Your task to perform on an android device: What's the weather going to be tomorrow? Image 0: 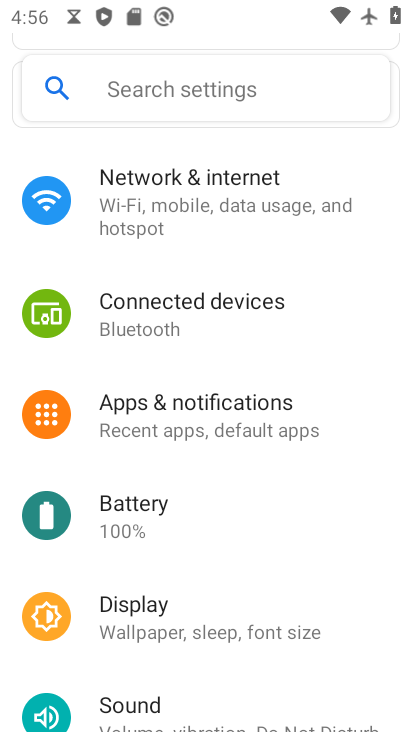
Step 0: press back button
Your task to perform on an android device: What's the weather going to be tomorrow? Image 1: 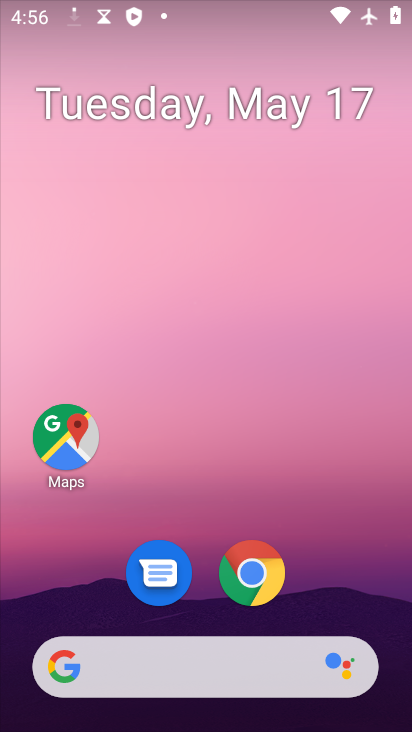
Step 1: drag from (5, 185) to (403, 294)
Your task to perform on an android device: What's the weather going to be tomorrow? Image 2: 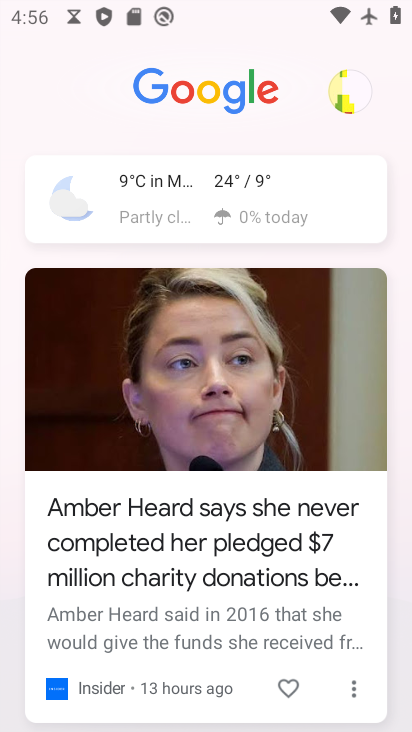
Step 2: click (142, 200)
Your task to perform on an android device: What's the weather going to be tomorrow? Image 3: 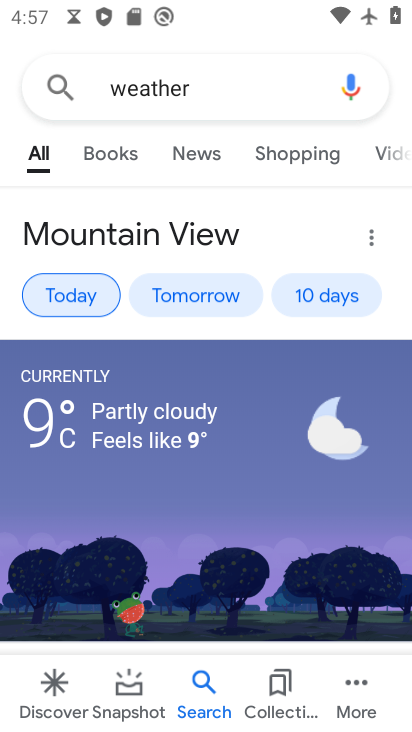
Step 3: click (214, 296)
Your task to perform on an android device: What's the weather going to be tomorrow? Image 4: 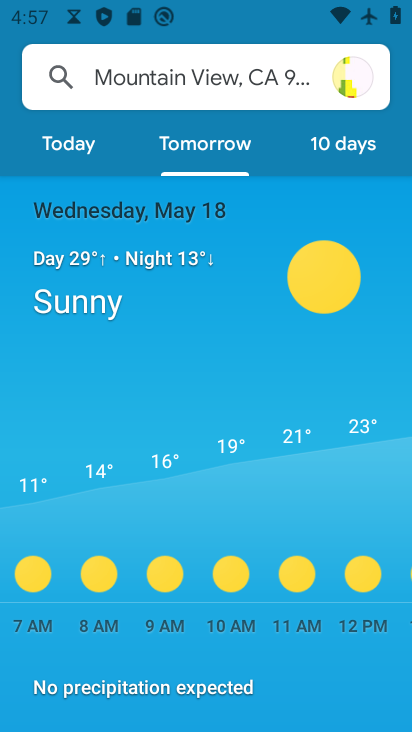
Step 4: press back button
Your task to perform on an android device: What's the weather going to be tomorrow? Image 5: 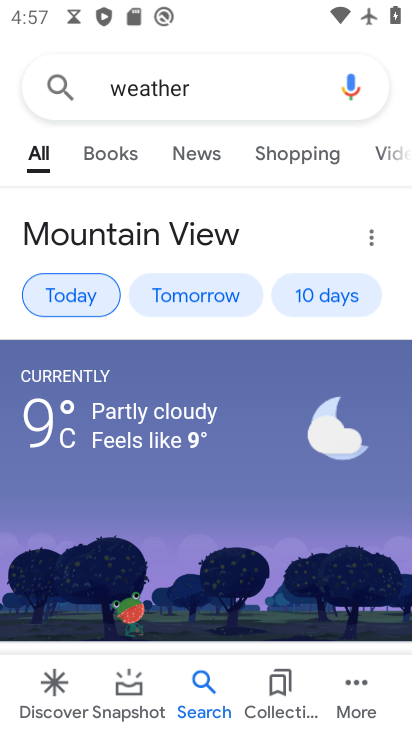
Step 5: press home button
Your task to perform on an android device: What's the weather going to be tomorrow? Image 6: 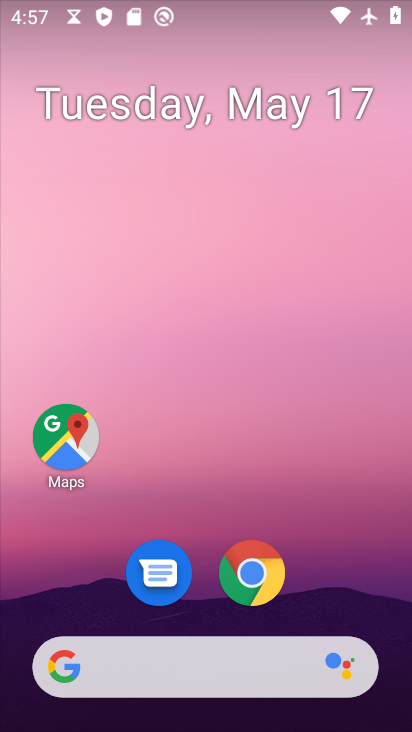
Step 6: drag from (1, 323) to (378, 401)
Your task to perform on an android device: What's the weather going to be tomorrow? Image 7: 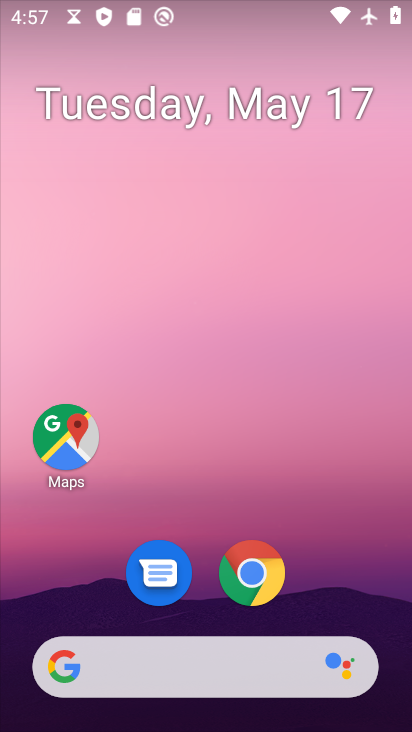
Step 7: drag from (77, 266) to (400, 348)
Your task to perform on an android device: What's the weather going to be tomorrow? Image 8: 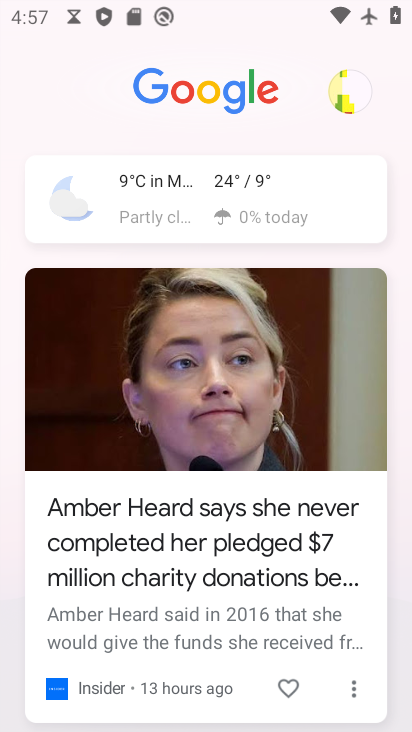
Step 8: click (154, 207)
Your task to perform on an android device: What's the weather going to be tomorrow? Image 9: 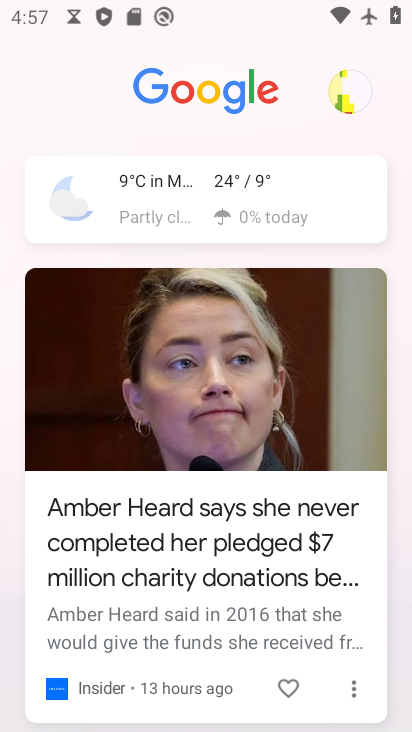
Step 9: click (154, 205)
Your task to perform on an android device: What's the weather going to be tomorrow? Image 10: 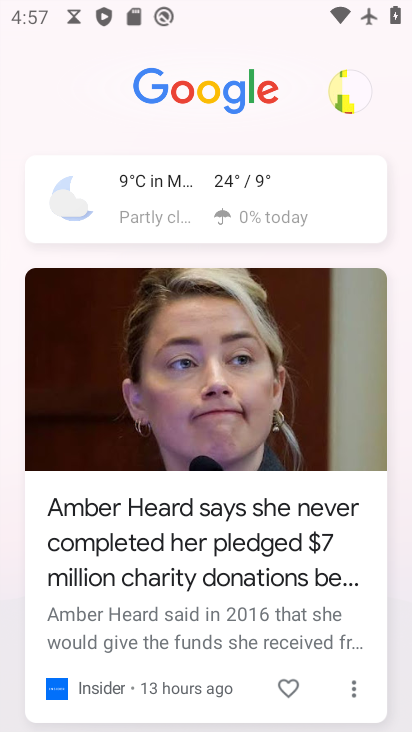
Step 10: click (161, 204)
Your task to perform on an android device: What's the weather going to be tomorrow? Image 11: 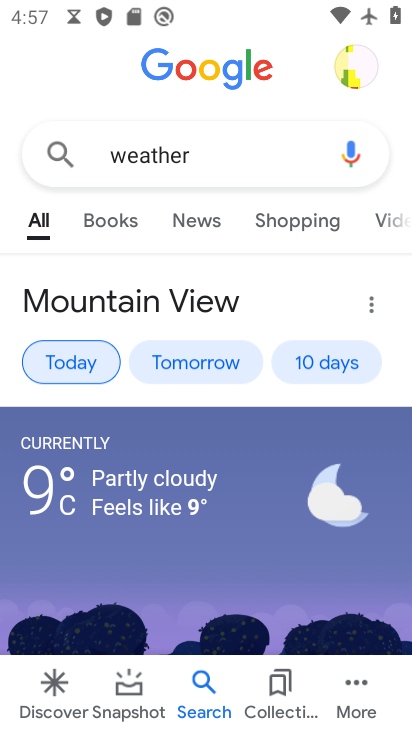
Step 11: task complete